Your task to perform on an android device: Open calendar and show me the first week of next month Image 0: 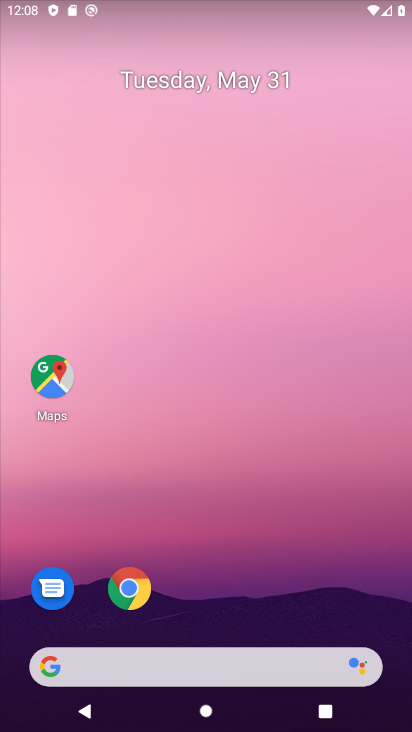
Step 0: drag from (174, 411) to (151, 23)
Your task to perform on an android device: Open calendar and show me the first week of next month Image 1: 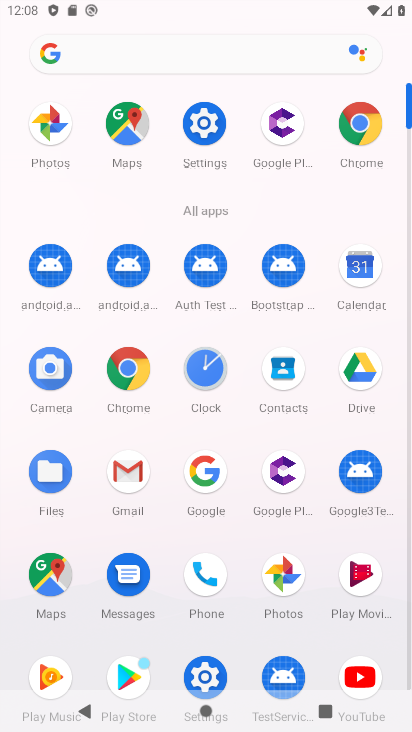
Step 1: click (352, 271)
Your task to perform on an android device: Open calendar and show me the first week of next month Image 2: 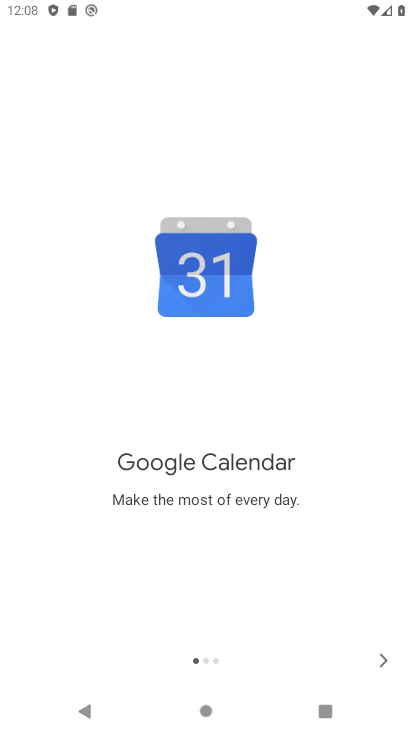
Step 2: click (393, 669)
Your task to perform on an android device: Open calendar and show me the first week of next month Image 3: 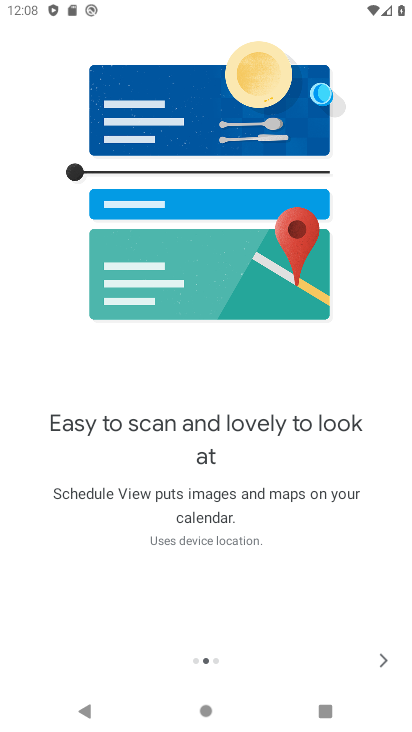
Step 3: click (386, 661)
Your task to perform on an android device: Open calendar and show me the first week of next month Image 4: 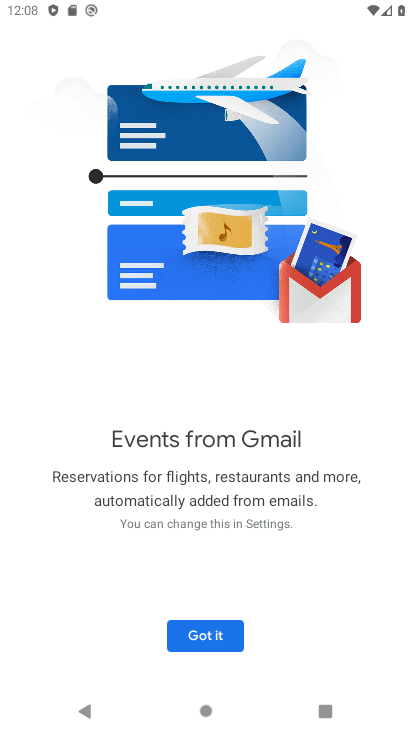
Step 4: click (231, 643)
Your task to perform on an android device: Open calendar and show me the first week of next month Image 5: 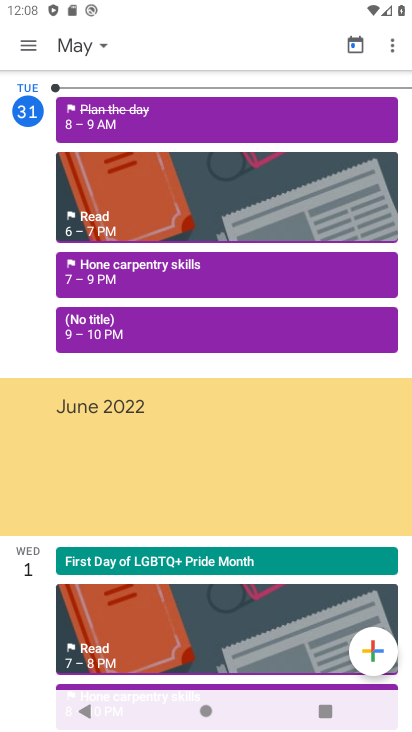
Step 5: click (96, 44)
Your task to perform on an android device: Open calendar and show me the first week of next month Image 6: 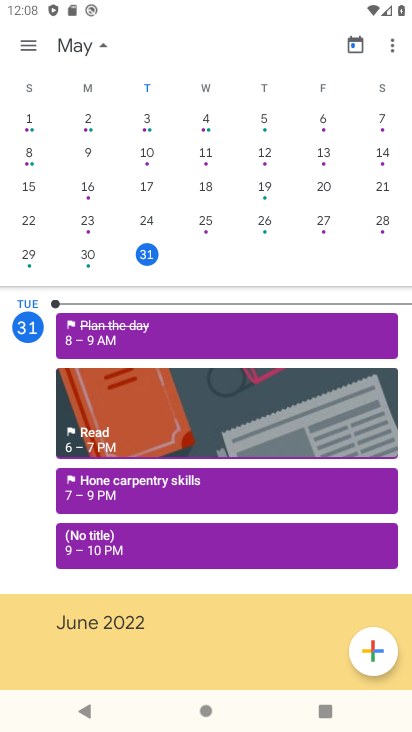
Step 6: drag from (313, 250) to (0, 216)
Your task to perform on an android device: Open calendar and show me the first week of next month Image 7: 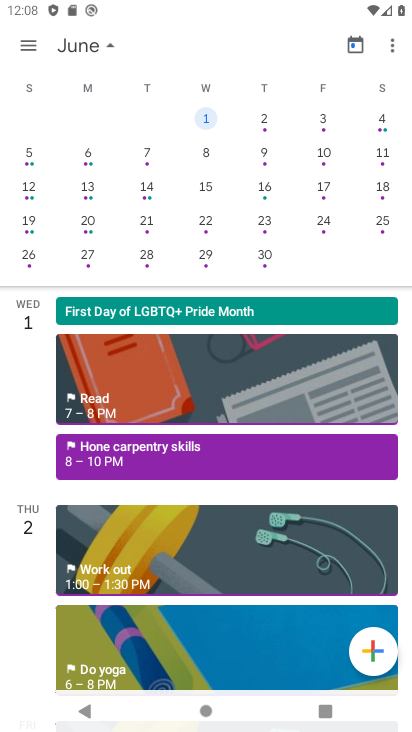
Step 7: click (22, 49)
Your task to perform on an android device: Open calendar and show me the first week of next month Image 8: 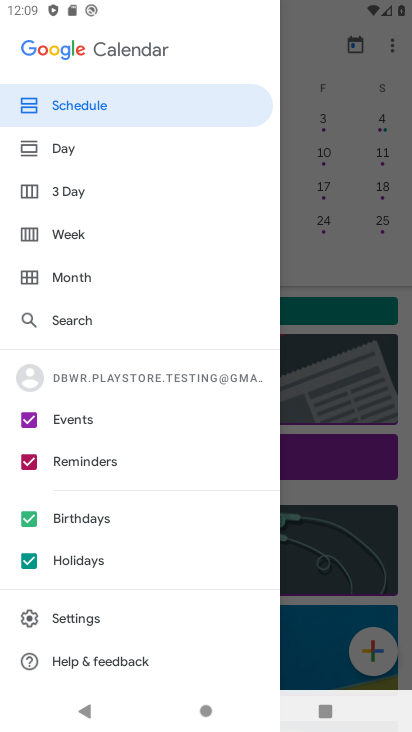
Step 8: click (65, 238)
Your task to perform on an android device: Open calendar and show me the first week of next month Image 9: 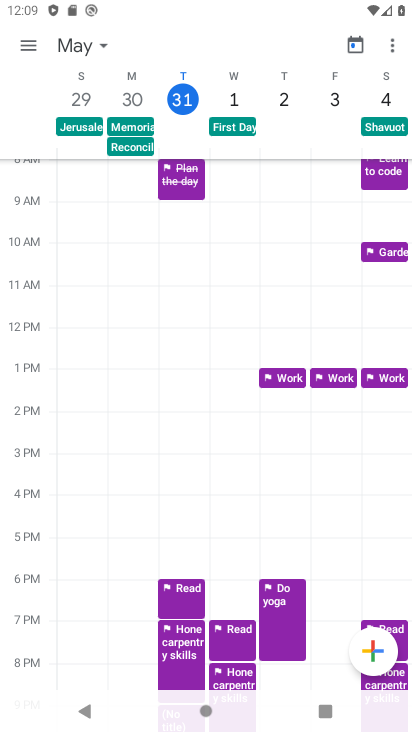
Step 9: task complete